Your task to perform on an android device: toggle translation in the chrome app Image 0: 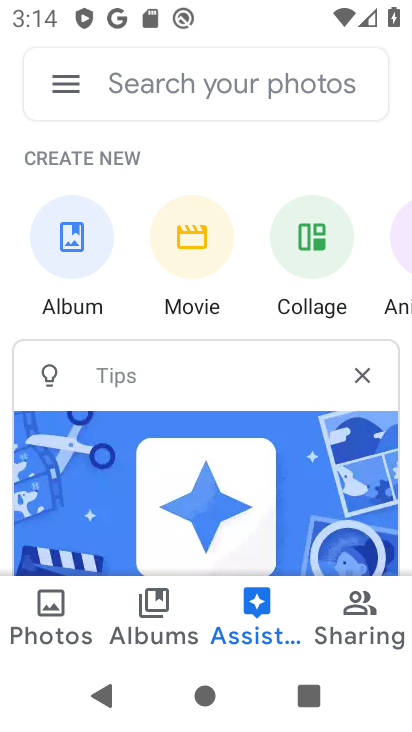
Step 0: press back button
Your task to perform on an android device: toggle translation in the chrome app Image 1: 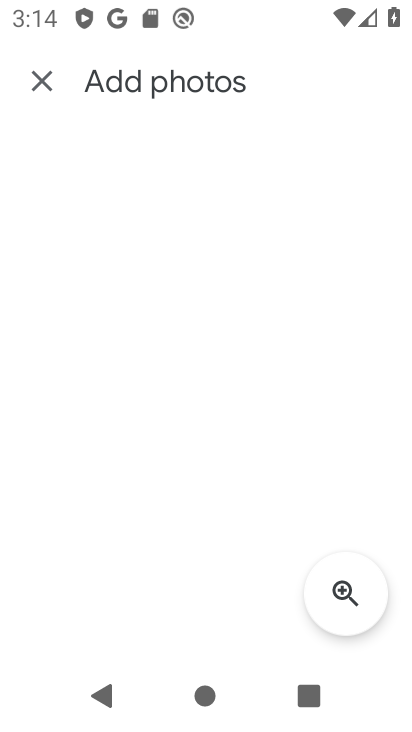
Step 1: press back button
Your task to perform on an android device: toggle translation in the chrome app Image 2: 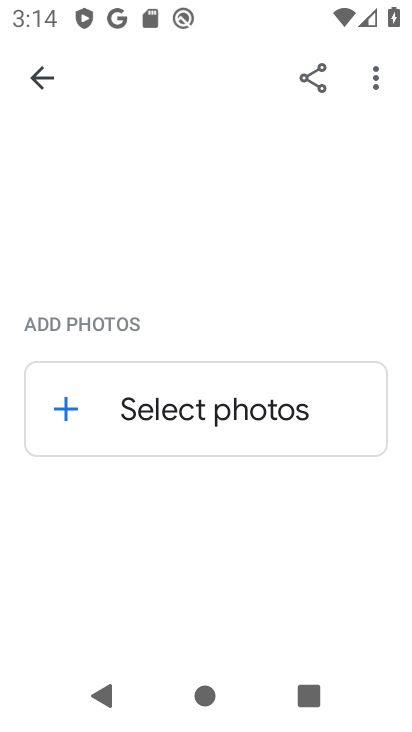
Step 2: press home button
Your task to perform on an android device: toggle translation in the chrome app Image 3: 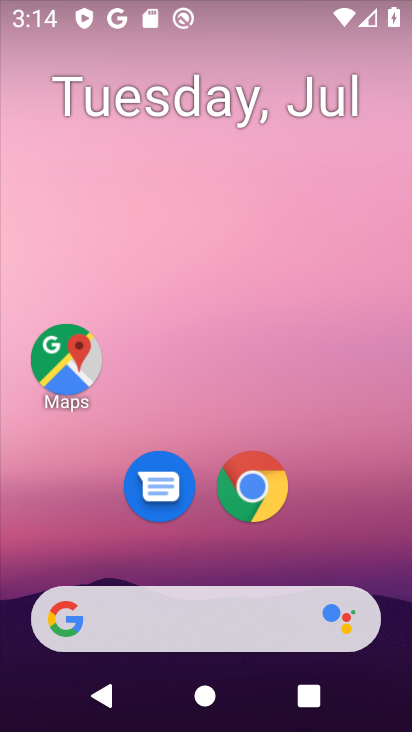
Step 3: click (269, 491)
Your task to perform on an android device: toggle translation in the chrome app Image 4: 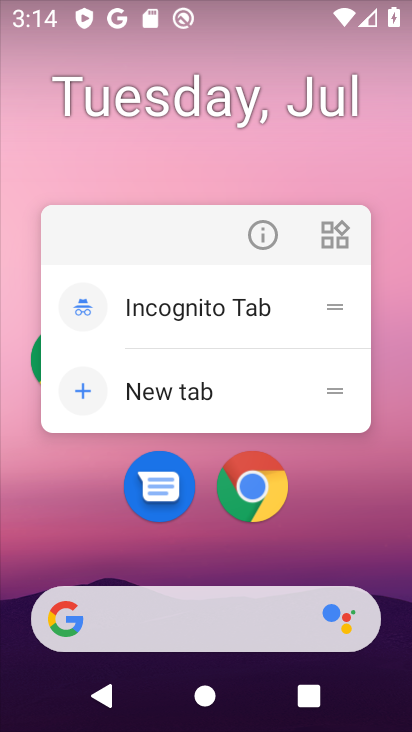
Step 4: click (252, 492)
Your task to perform on an android device: toggle translation in the chrome app Image 5: 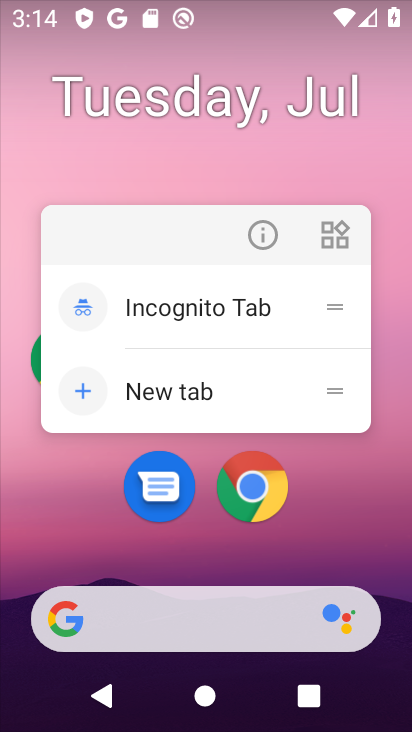
Step 5: click (260, 480)
Your task to perform on an android device: toggle translation in the chrome app Image 6: 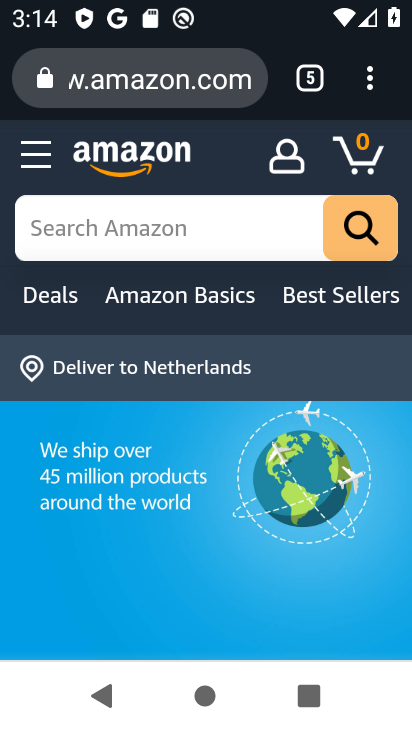
Step 6: drag from (370, 69) to (131, 546)
Your task to perform on an android device: toggle translation in the chrome app Image 7: 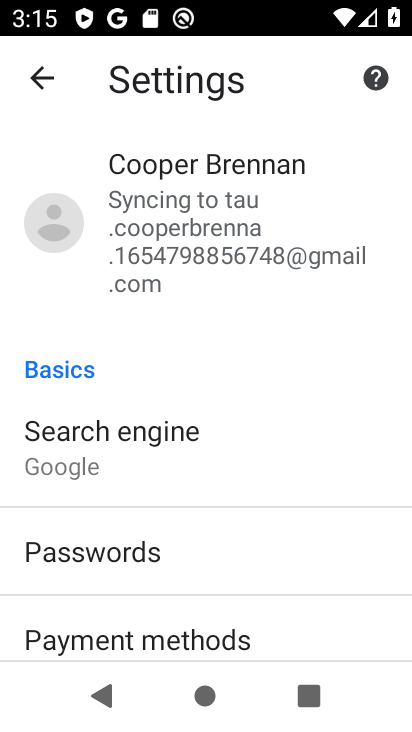
Step 7: drag from (130, 574) to (215, 70)
Your task to perform on an android device: toggle translation in the chrome app Image 8: 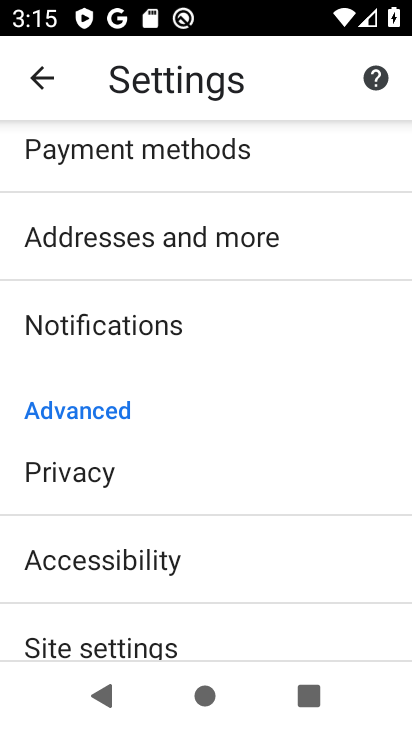
Step 8: drag from (135, 619) to (198, 295)
Your task to perform on an android device: toggle translation in the chrome app Image 9: 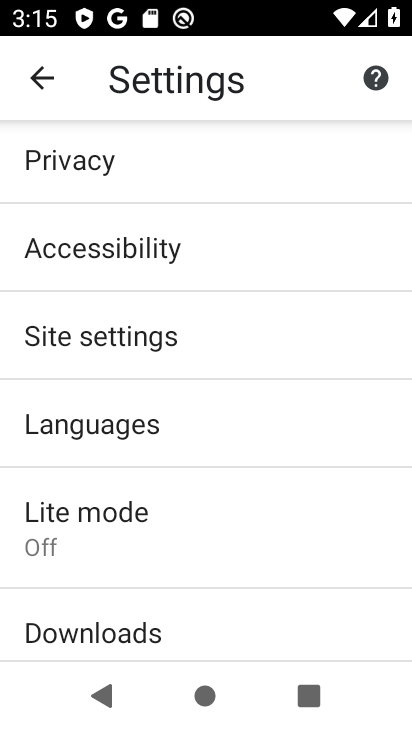
Step 9: click (82, 405)
Your task to perform on an android device: toggle translation in the chrome app Image 10: 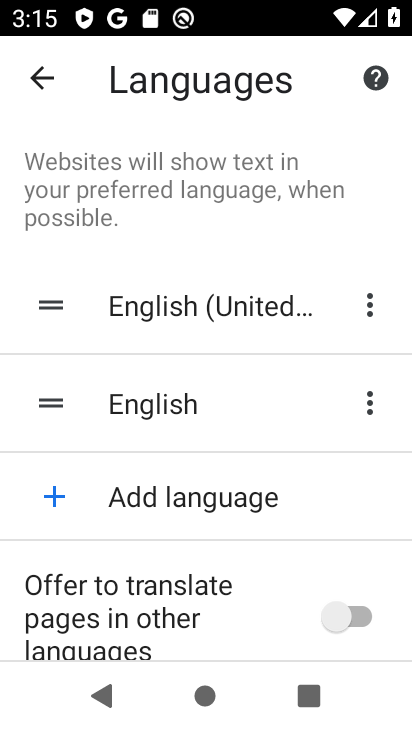
Step 10: click (350, 620)
Your task to perform on an android device: toggle translation in the chrome app Image 11: 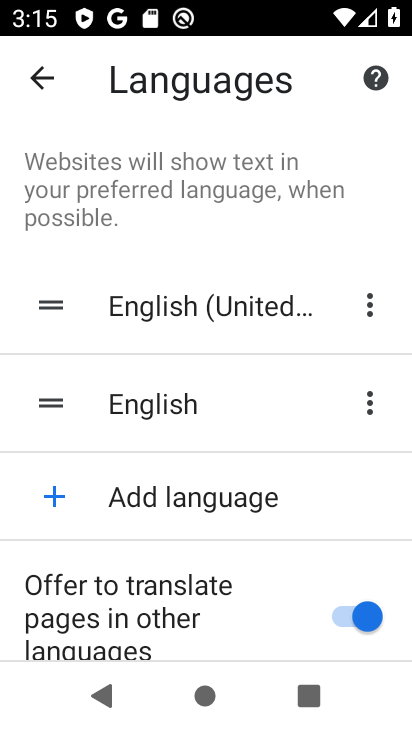
Step 11: task complete